Your task to perform on an android device: change timer sound Image 0: 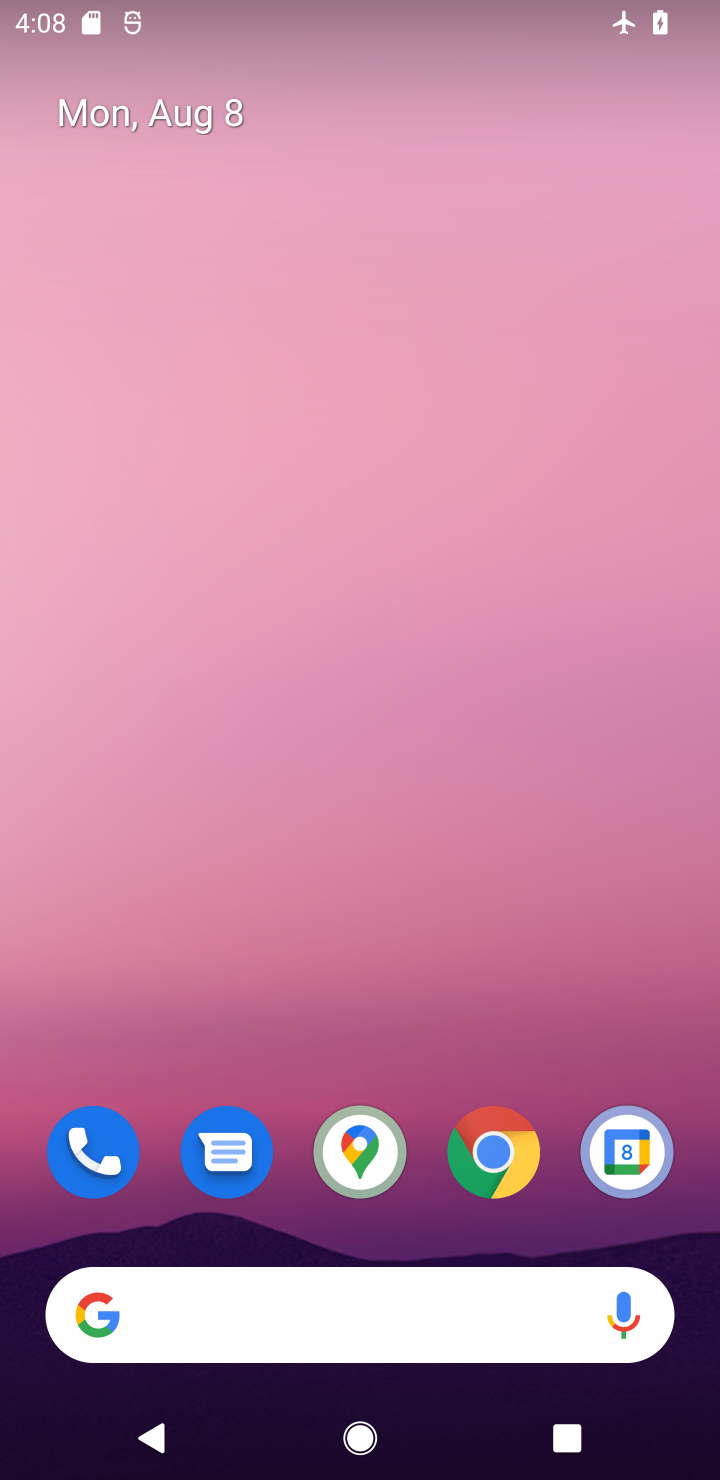
Step 0: drag from (342, 1128) to (485, 12)
Your task to perform on an android device: change timer sound Image 1: 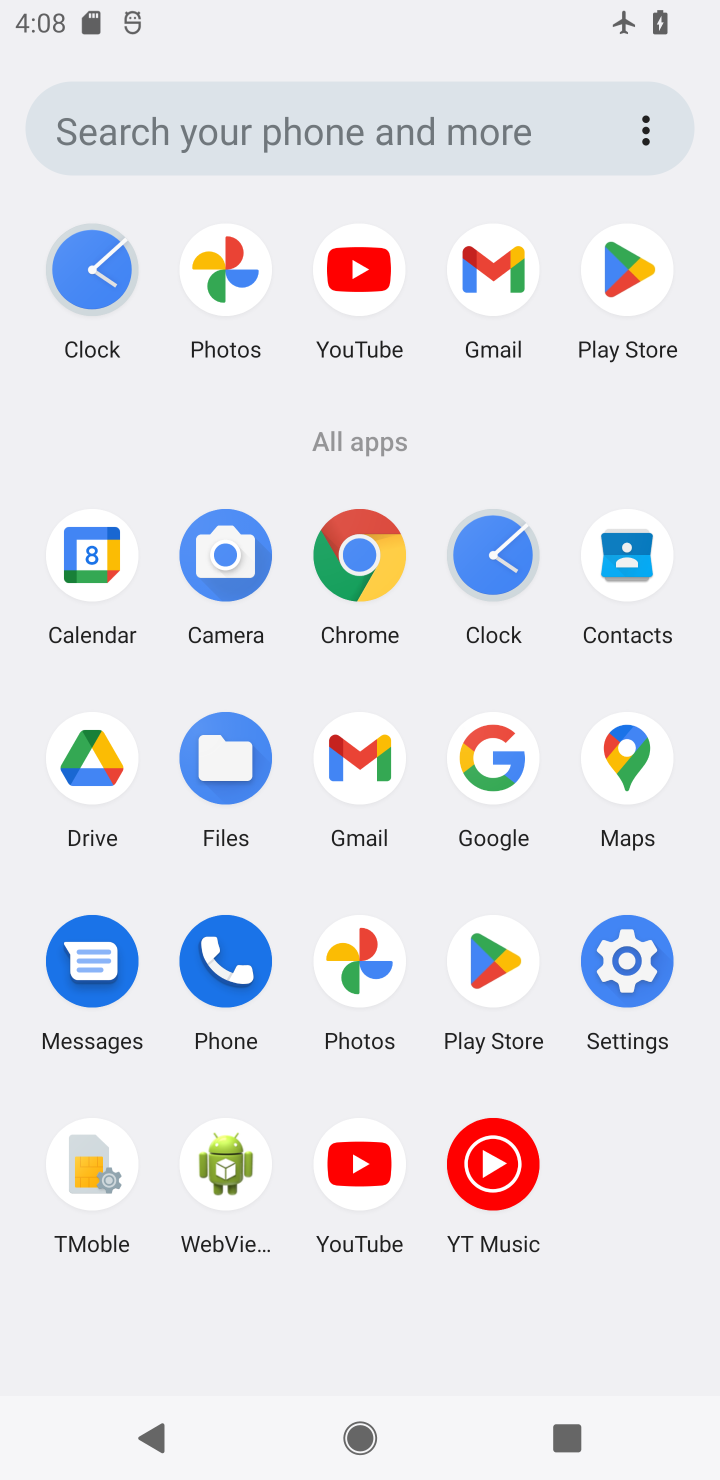
Step 1: click (507, 563)
Your task to perform on an android device: change timer sound Image 2: 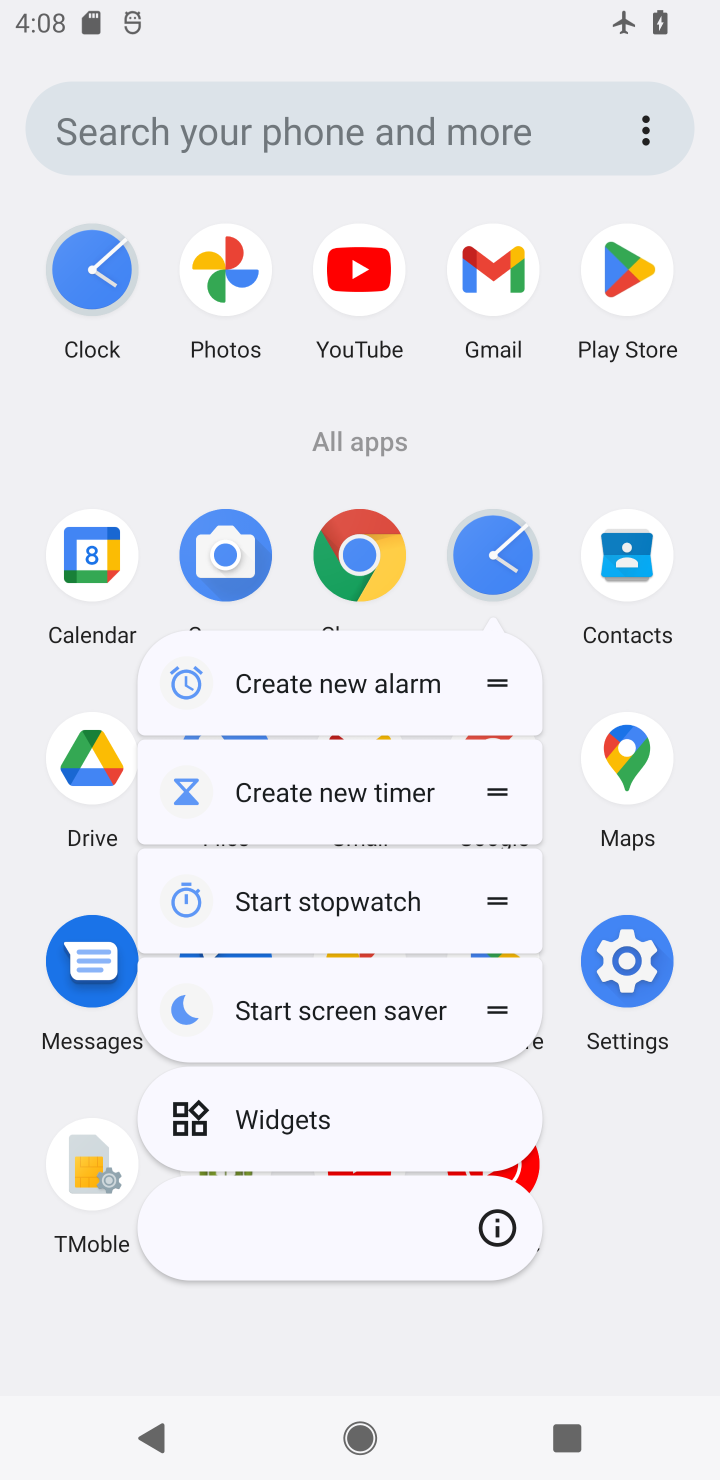
Step 2: click (506, 547)
Your task to perform on an android device: change timer sound Image 3: 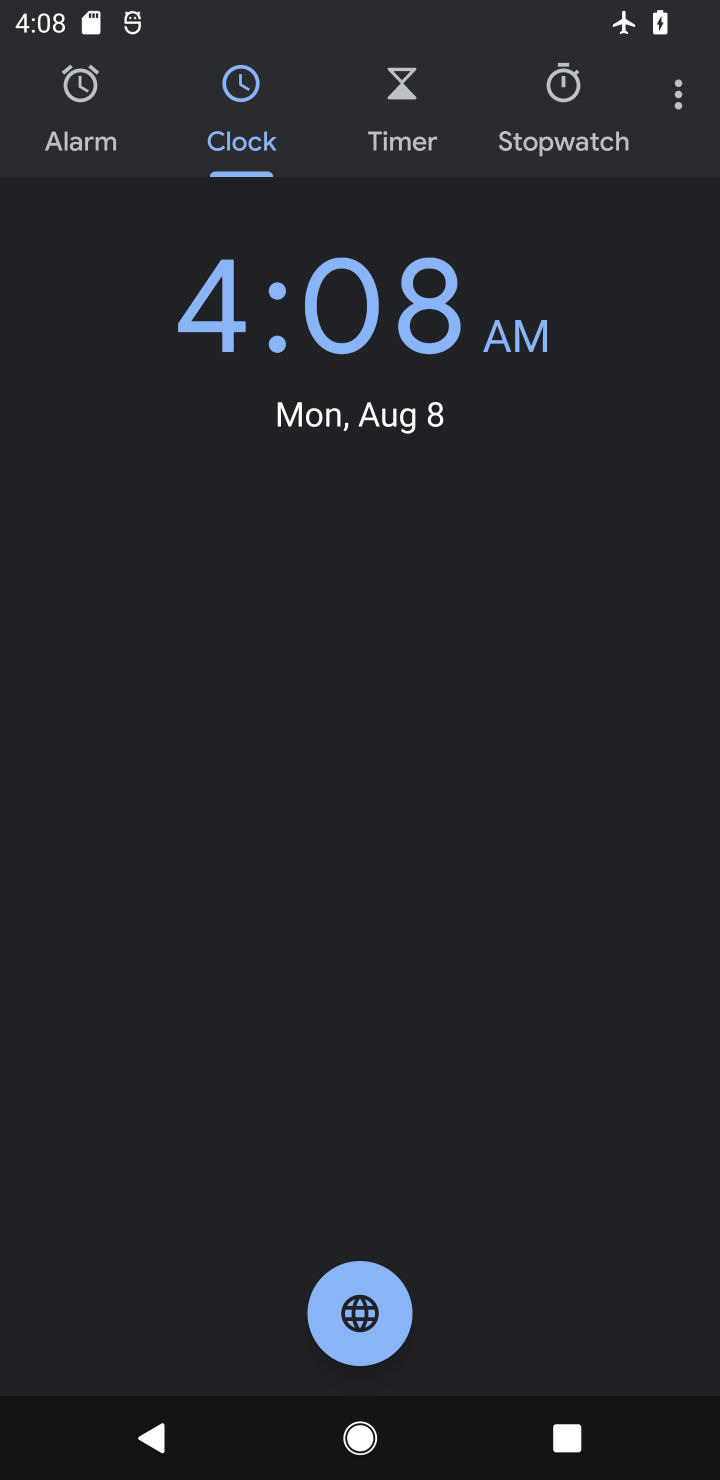
Step 3: click (668, 87)
Your task to perform on an android device: change timer sound Image 4: 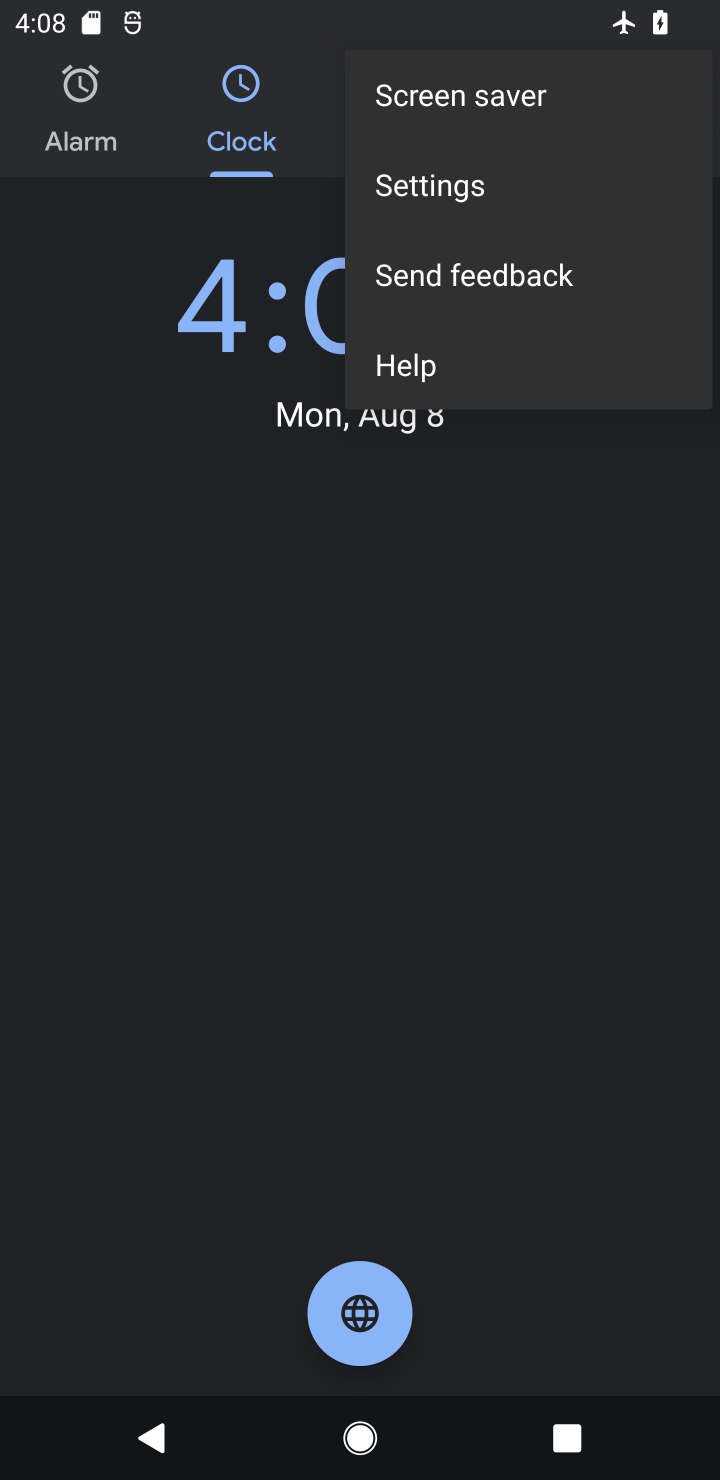
Step 4: click (465, 180)
Your task to perform on an android device: change timer sound Image 5: 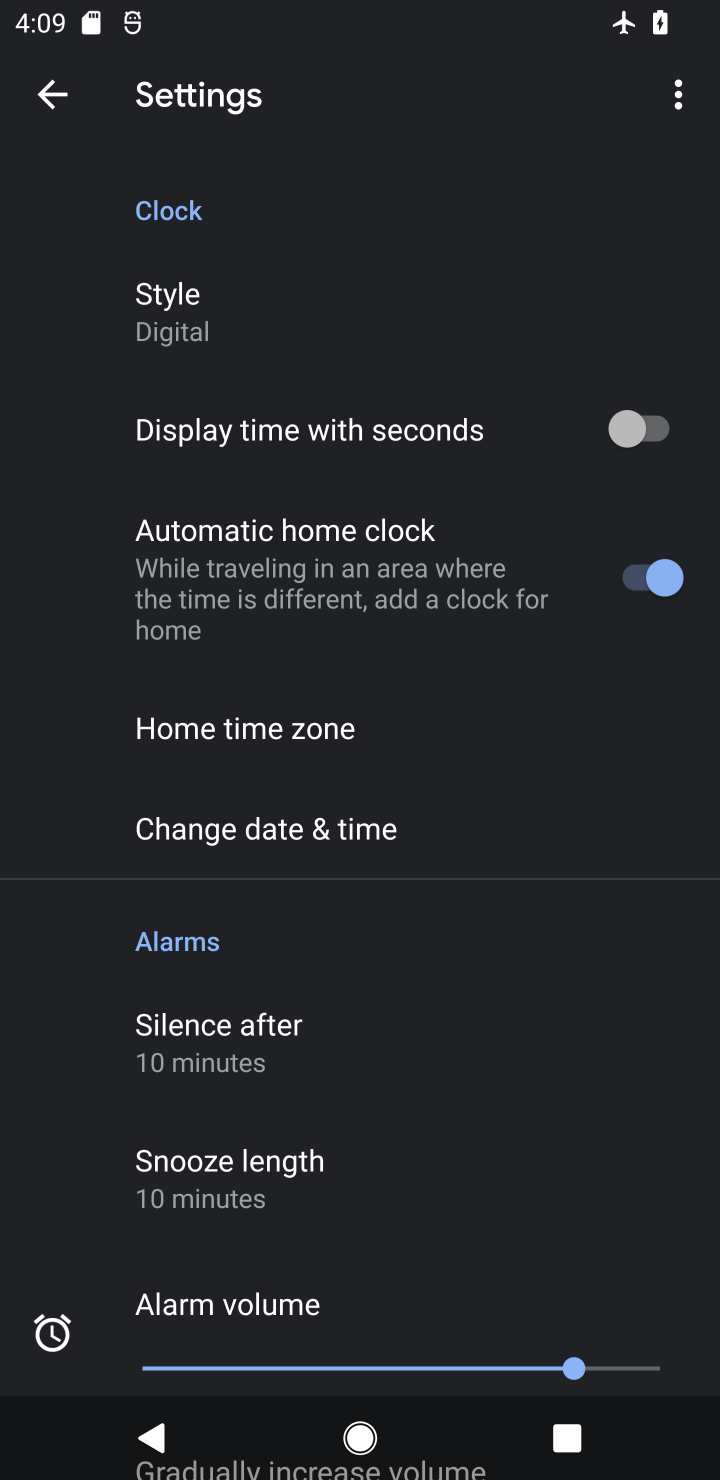
Step 5: drag from (264, 1255) to (483, 287)
Your task to perform on an android device: change timer sound Image 6: 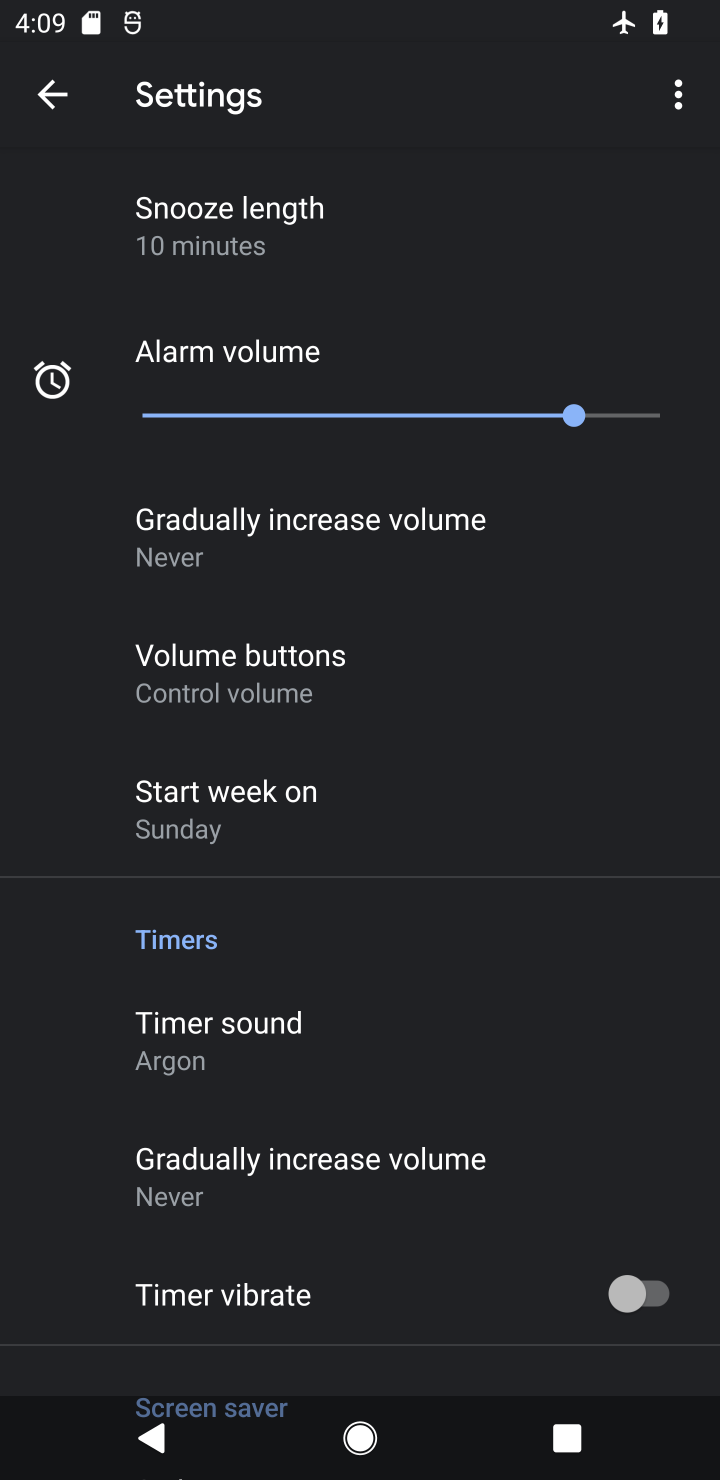
Step 6: click (229, 1013)
Your task to perform on an android device: change timer sound Image 7: 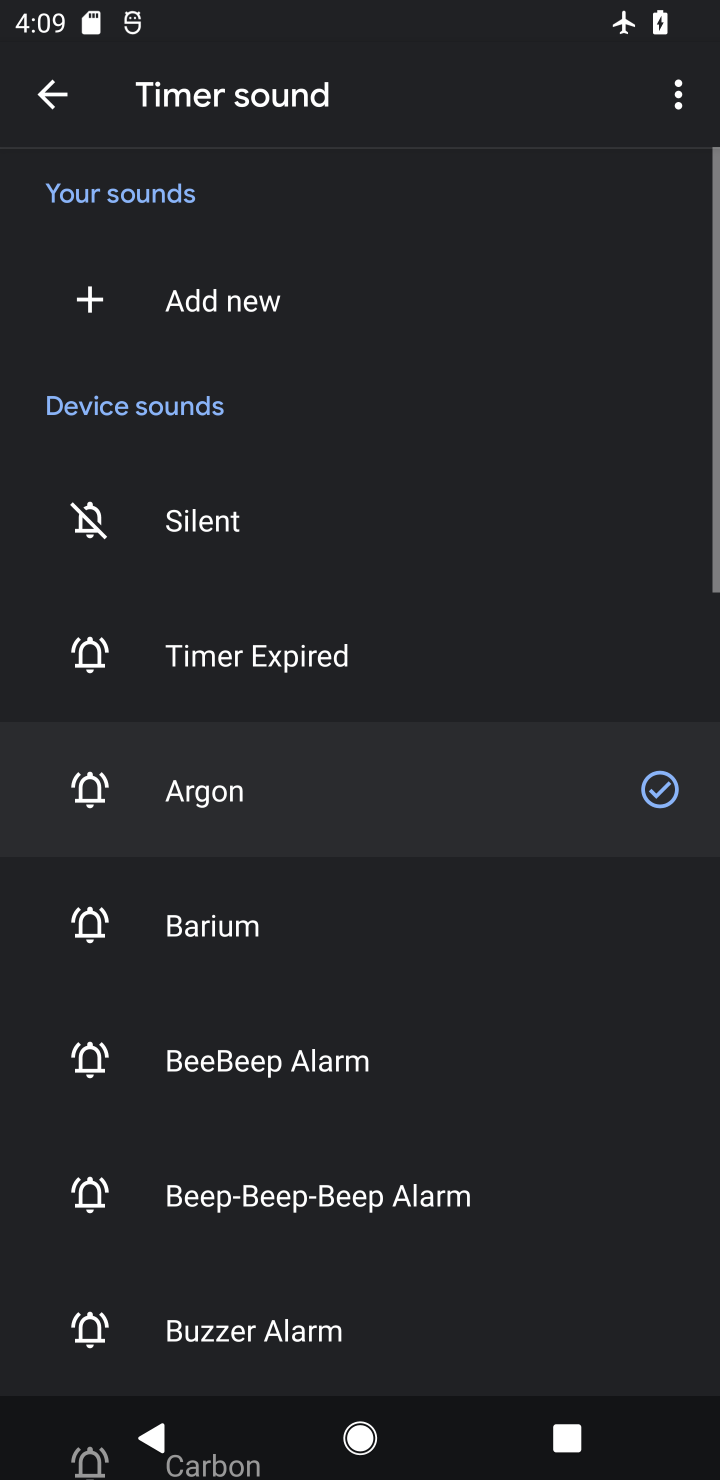
Step 7: click (247, 941)
Your task to perform on an android device: change timer sound Image 8: 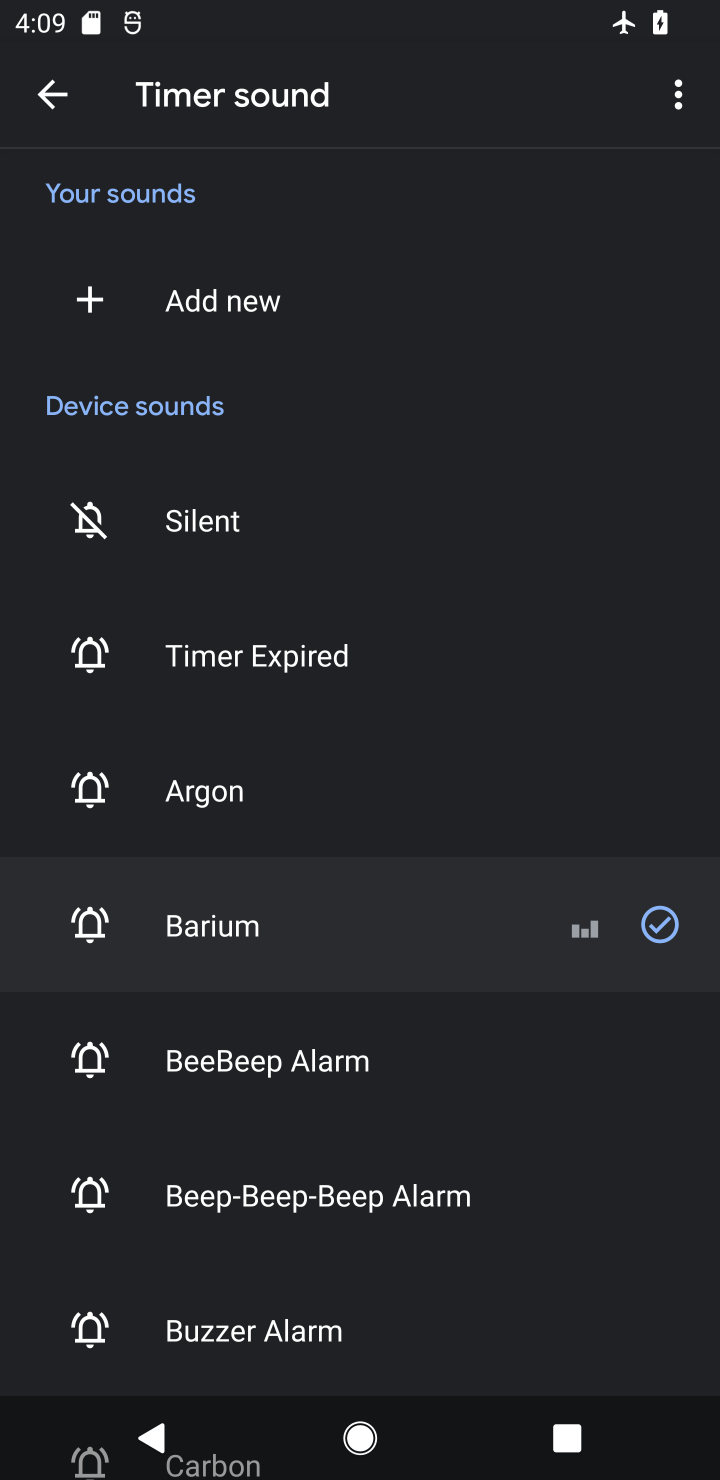
Step 8: task complete